Your task to perform on an android device: Is it going to rain tomorrow? Image 0: 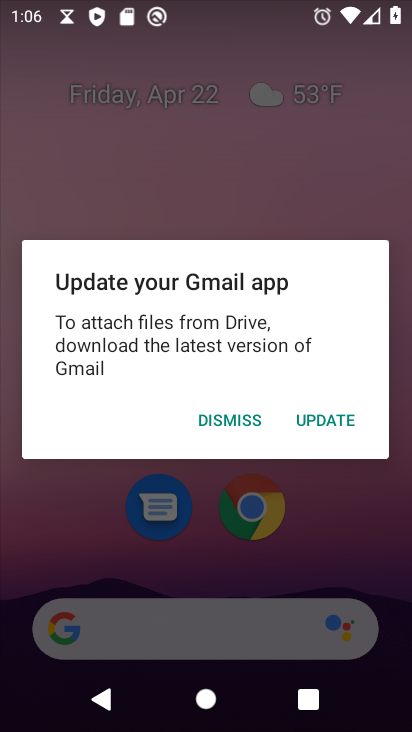
Step 0: press home button
Your task to perform on an android device: Is it going to rain tomorrow? Image 1: 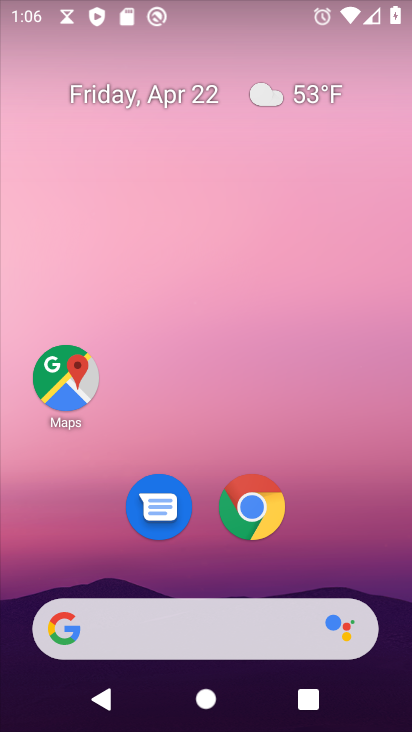
Step 1: click (269, 510)
Your task to perform on an android device: Is it going to rain tomorrow? Image 2: 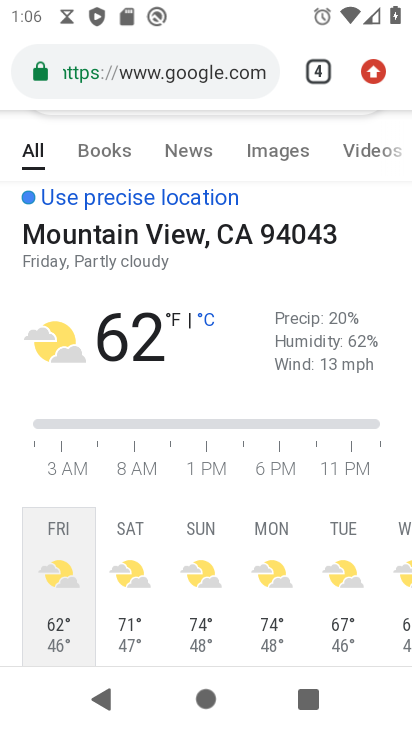
Step 2: click (311, 69)
Your task to perform on an android device: Is it going to rain tomorrow? Image 3: 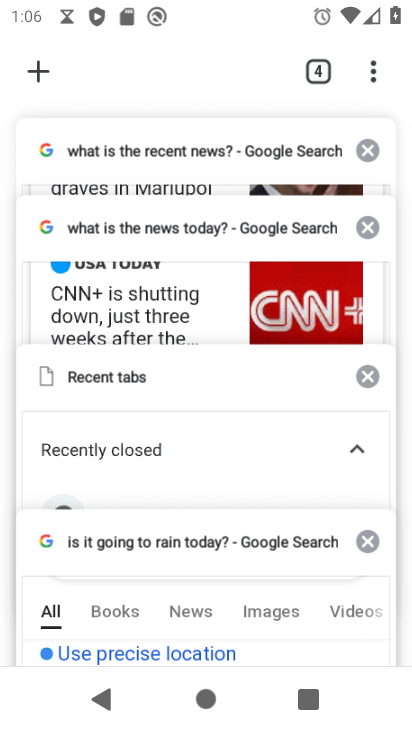
Step 3: click (39, 65)
Your task to perform on an android device: Is it going to rain tomorrow? Image 4: 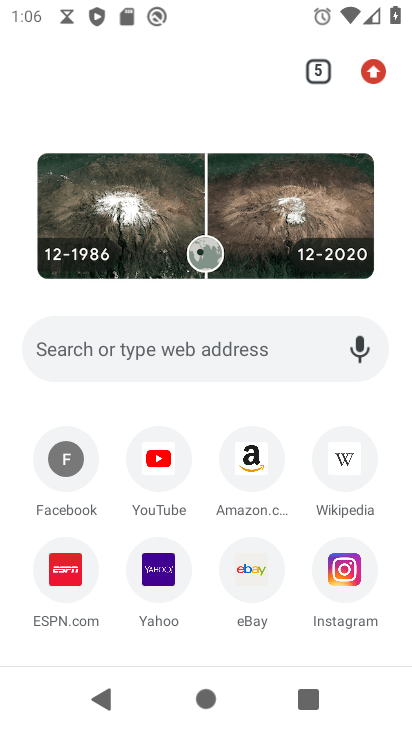
Step 4: click (110, 354)
Your task to perform on an android device: Is it going to rain tomorrow? Image 5: 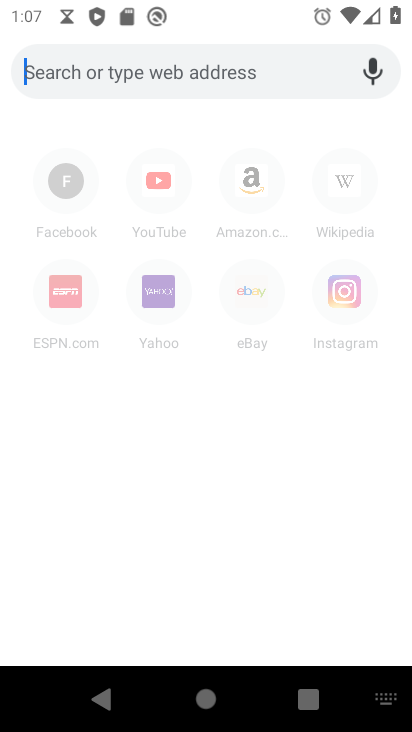
Step 5: type "is it going to rain tomorrow"
Your task to perform on an android device: Is it going to rain tomorrow? Image 6: 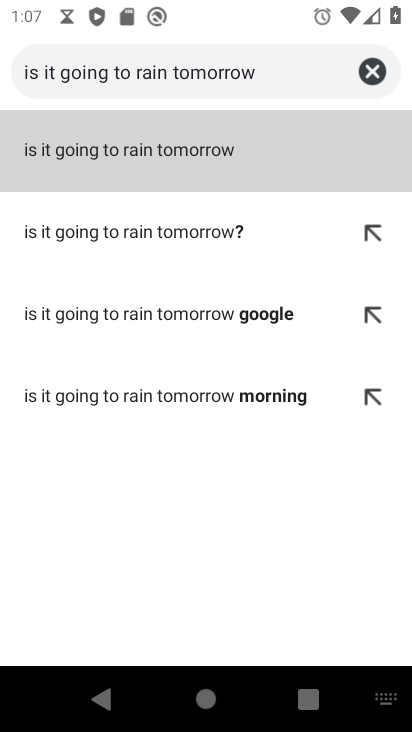
Step 6: click (167, 216)
Your task to perform on an android device: Is it going to rain tomorrow? Image 7: 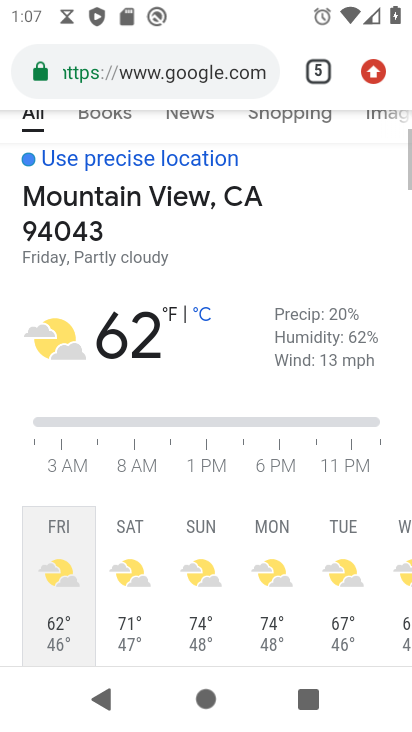
Step 7: task complete